Your task to perform on an android device: toggle pop-ups in chrome Image 0: 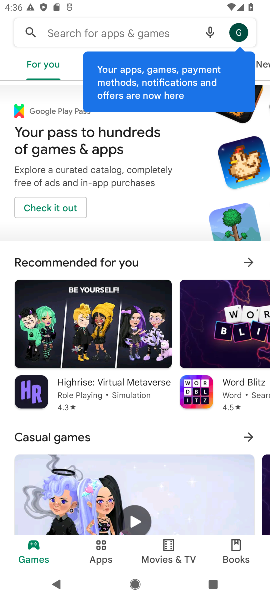
Step 0: press home button
Your task to perform on an android device: toggle pop-ups in chrome Image 1: 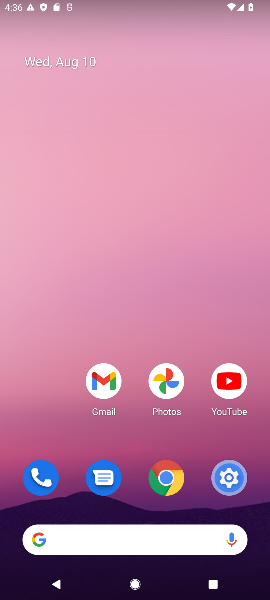
Step 1: click (163, 477)
Your task to perform on an android device: toggle pop-ups in chrome Image 2: 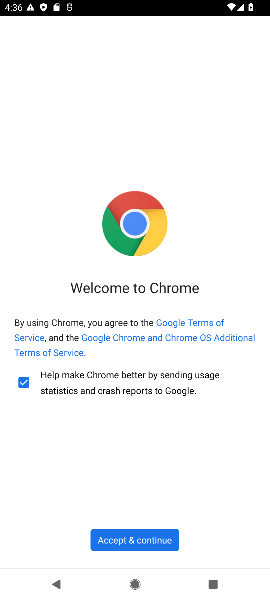
Step 2: click (152, 548)
Your task to perform on an android device: toggle pop-ups in chrome Image 3: 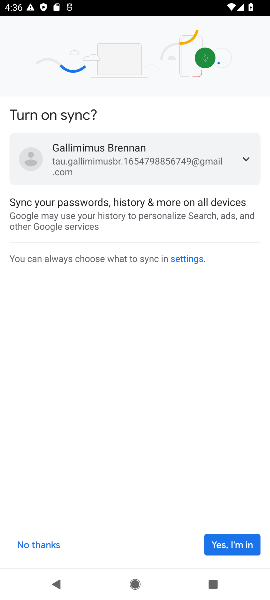
Step 3: click (218, 544)
Your task to perform on an android device: toggle pop-ups in chrome Image 4: 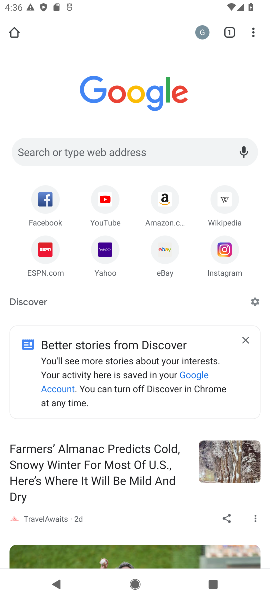
Step 4: click (248, 33)
Your task to perform on an android device: toggle pop-ups in chrome Image 5: 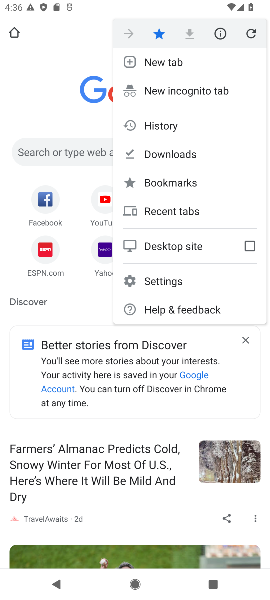
Step 5: click (169, 280)
Your task to perform on an android device: toggle pop-ups in chrome Image 6: 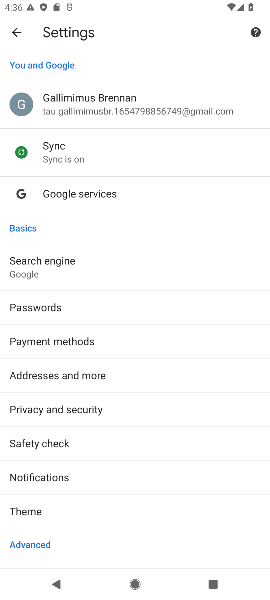
Step 6: drag from (79, 536) to (104, 314)
Your task to perform on an android device: toggle pop-ups in chrome Image 7: 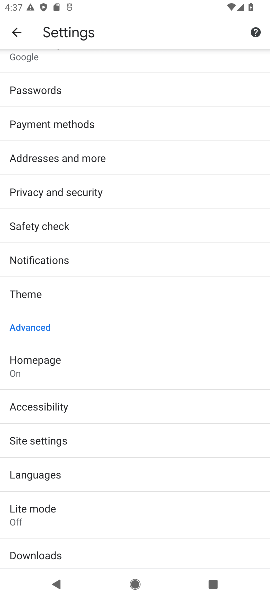
Step 7: click (36, 443)
Your task to perform on an android device: toggle pop-ups in chrome Image 8: 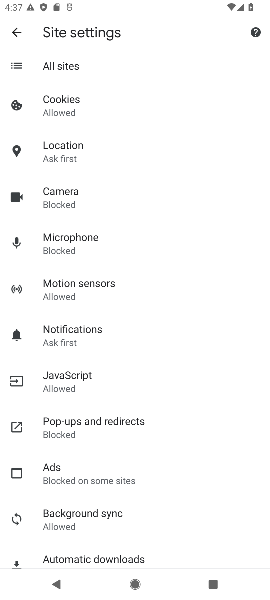
Step 8: click (54, 429)
Your task to perform on an android device: toggle pop-ups in chrome Image 9: 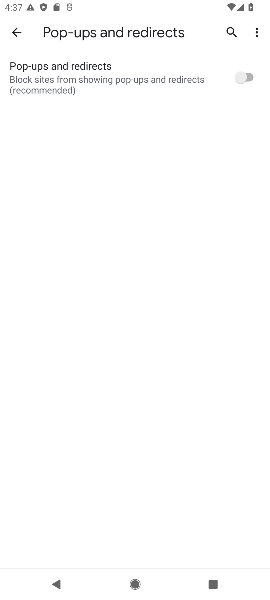
Step 9: click (241, 79)
Your task to perform on an android device: toggle pop-ups in chrome Image 10: 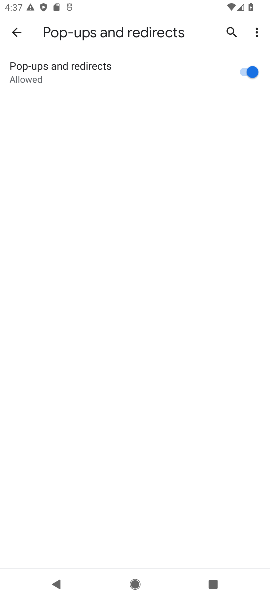
Step 10: task complete